Your task to perform on an android device: toggle sleep mode Image 0: 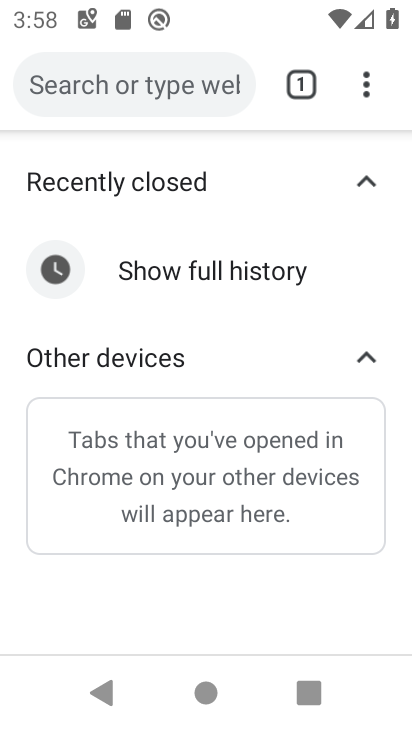
Step 0: press home button
Your task to perform on an android device: toggle sleep mode Image 1: 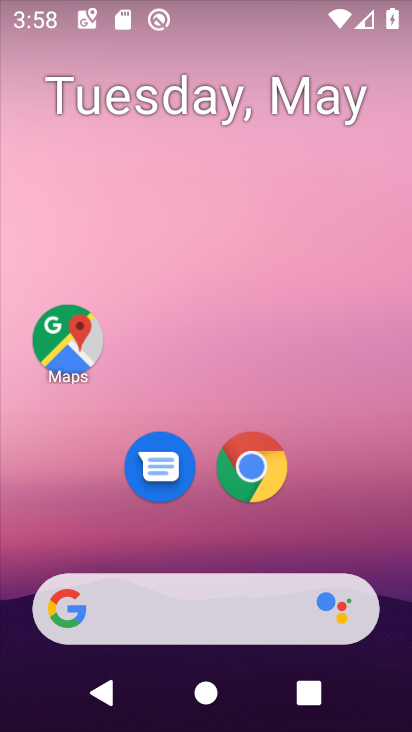
Step 1: drag from (261, 580) to (169, 58)
Your task to perform on an android device: toggle sleep mode Image 2: 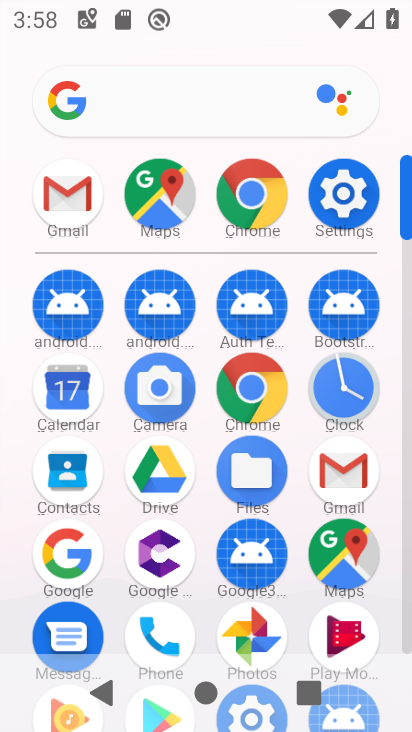
Step 2: click (321, 202)
Your task to perform on an android device: toggle sleep mode Image 3: 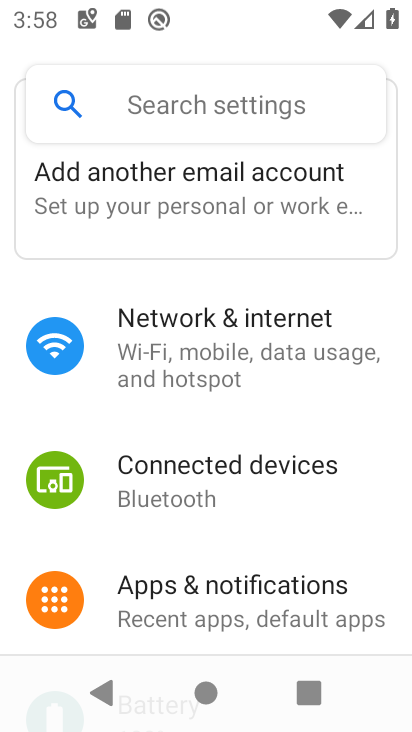
Step 3: task complete